Your task to perform on an android device: Search for vegetarian restaurants on Maps Image 0: 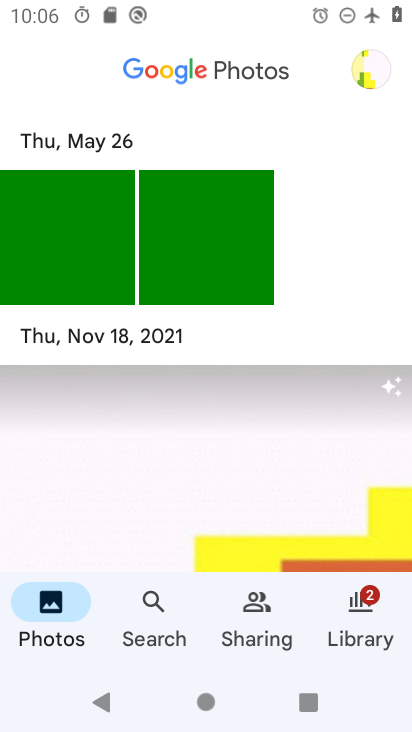
Step 0: press home button
Your task to perform on an android device: Search for vegetarian restaurants on Maps Image 1: 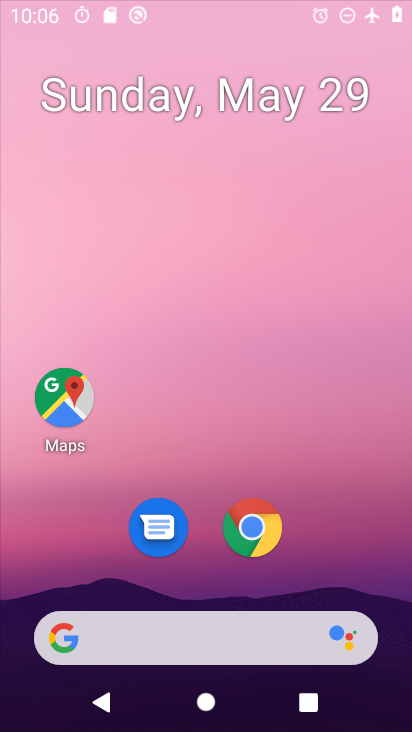
Step 1: drag from (410, 616) to (259, 68)
Your task to perform on an android device: Search for vegetarian restaurants on Maps Image 2: 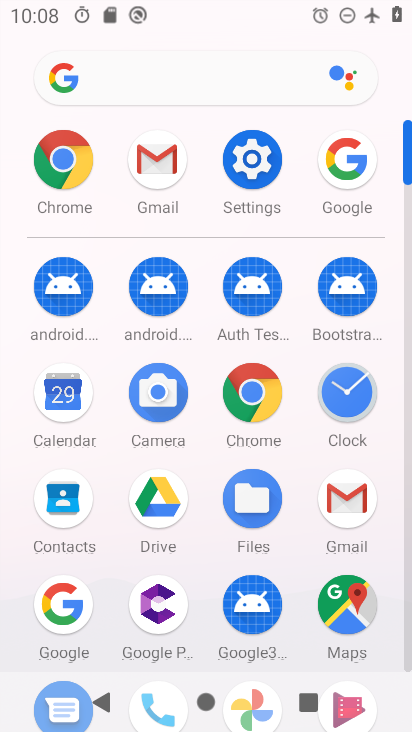
Step 2: click (333, 605)
Your task to perform on an android device: Search for vegetarian restaurants on Maps Image 3: 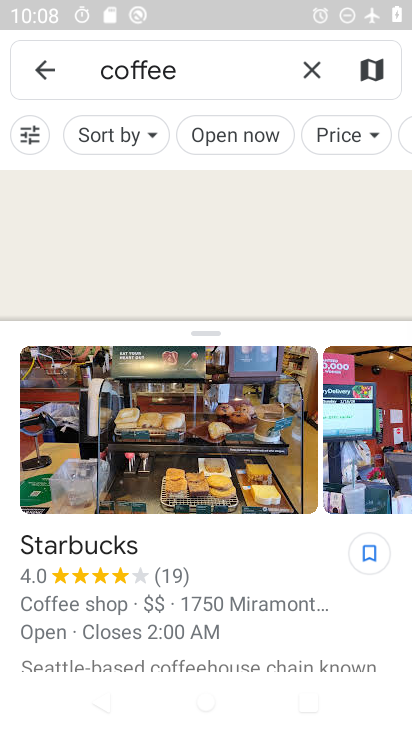
Step 3: click (315, 79)
Your task to perform on an android device: Search for vegetarian restaurants on Maps Image 4: 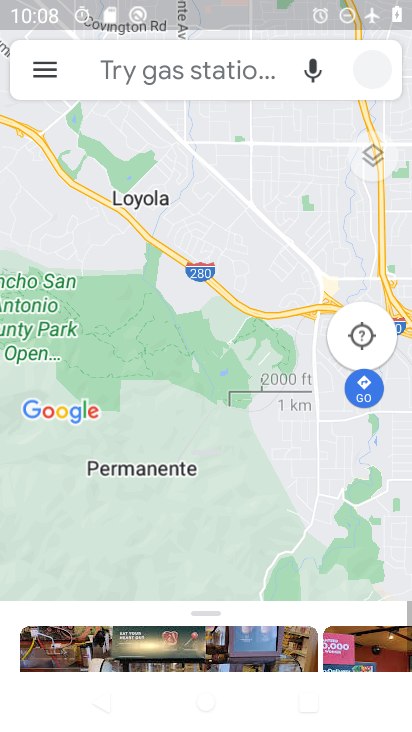
Step 4: click (147, 74)
Your task to perform on an android device: Search for vegetarian restaurants on Maps Image 5: 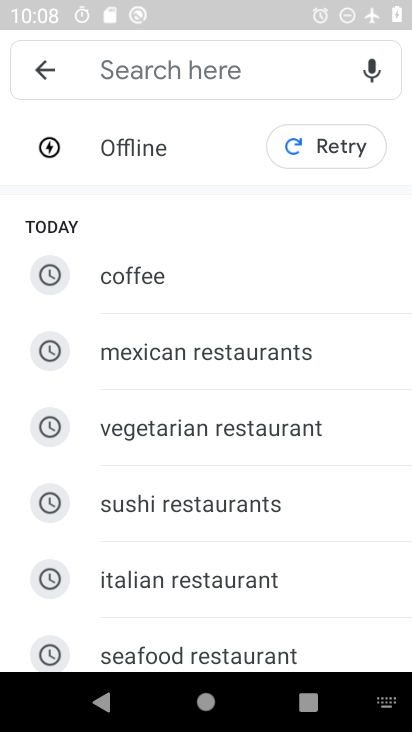
Step 5: click (183, 443)
Your task to perform on an android device: Search for vegetarian restaurants on Maps Image 6: 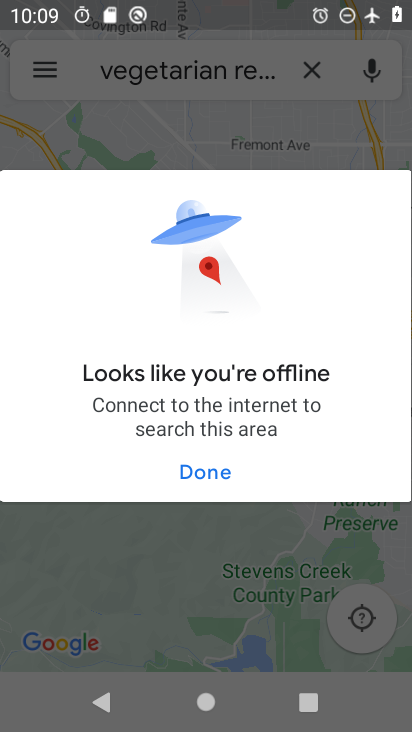
Step 6: task complete